Your task to perform on an android device: clear history in the chrome app Image 0: 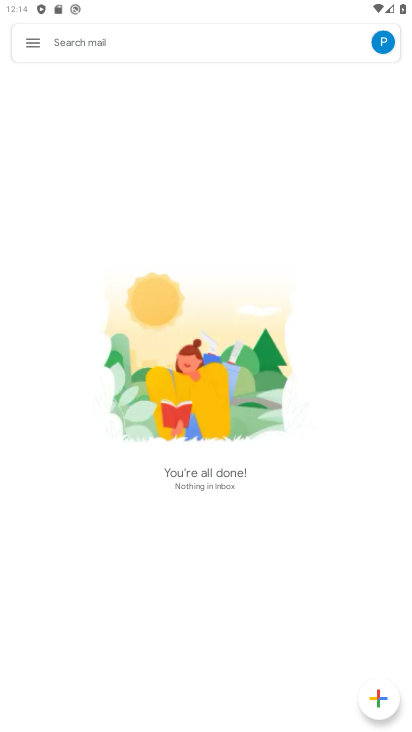
Step 0: press back button
Your task to perform on an android device: clear history in the chrome app Image 1: 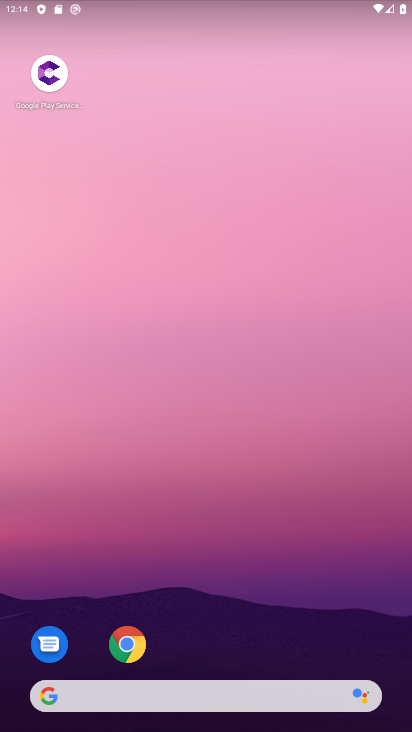
Step 1: click (116, 640)
Your task to perform on an android device: clear history in the chrome app Image 2: 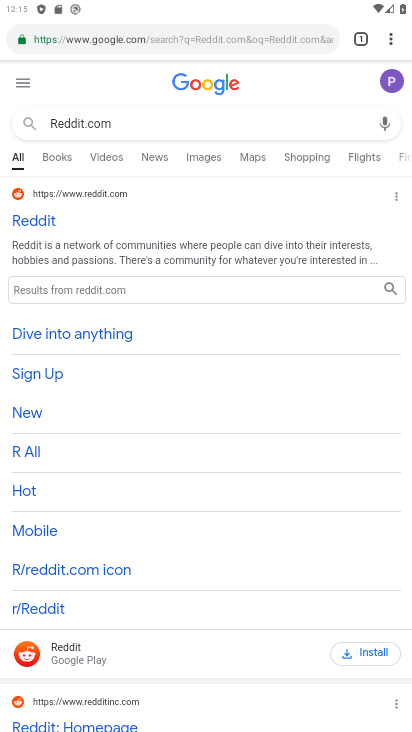
Step 2: click (392, 37)
Your task to perform on an android device: clear history in the chrome app Image 3: 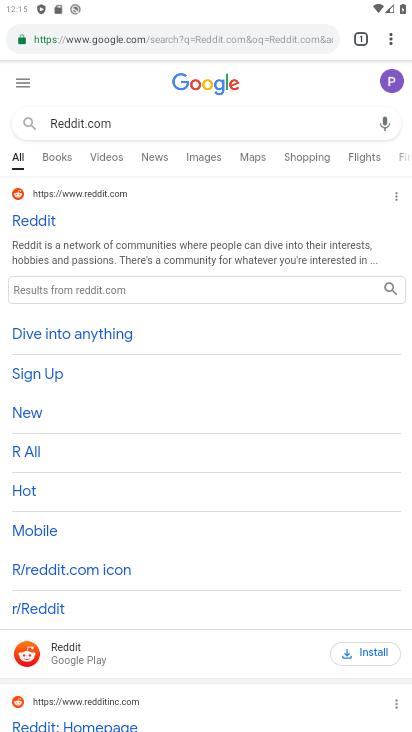
Step 3: click (392, 37)
Your task to perform on an android device: clear history in the chrome app Image 4: 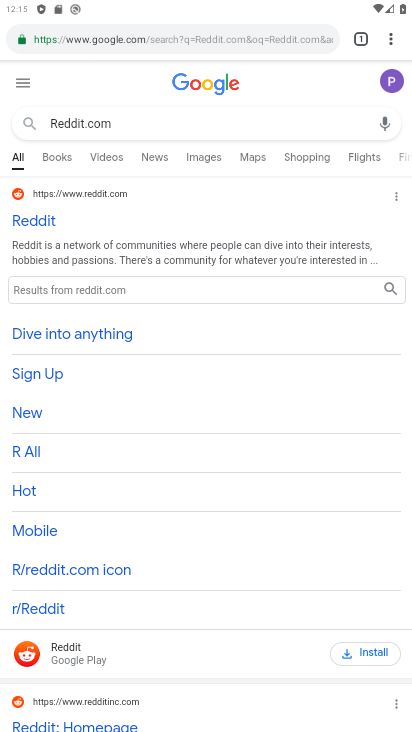
Step 4: click (392, 37)
Your task to perform on an android device: clear history in the chrome app Image 5: 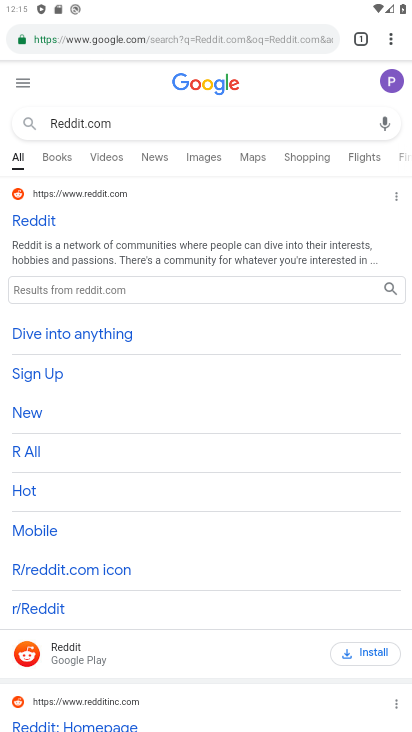
Step 5: click (389, 34)
Your task to perform on an android device: clear history in the chrome app Image 6: 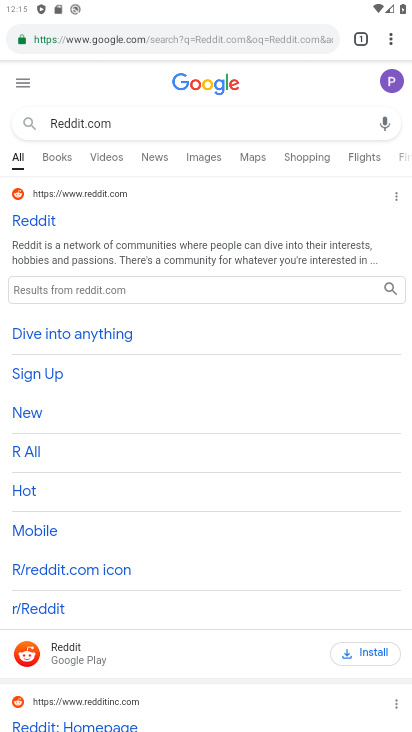
Step 6: click (391, 36)
Your task to perform on an android device: clear history in the chrome app Image 7: 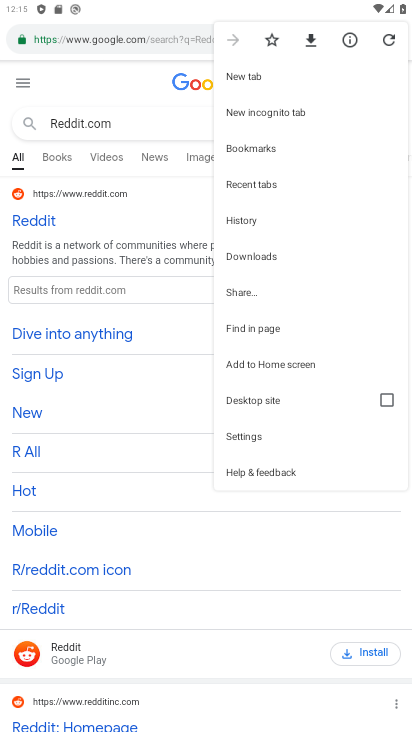
Step 7: click (237, 213)
Your task to perform on an android device: clear history in the chrome app Image 8: 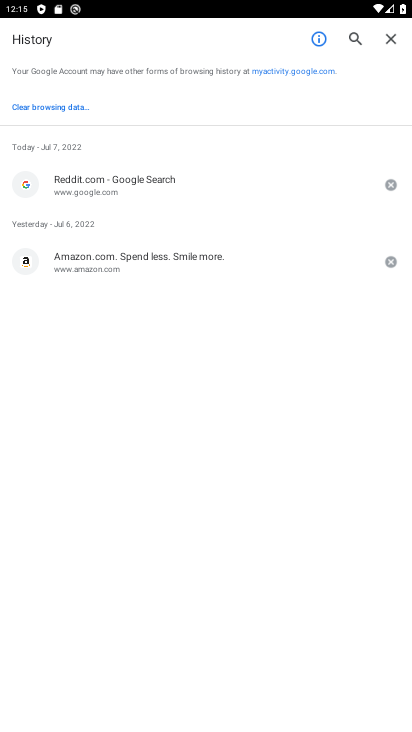
Step 8: click (36, 98)
Your task to perform on an android device: clear history in the chrome app Image 9: 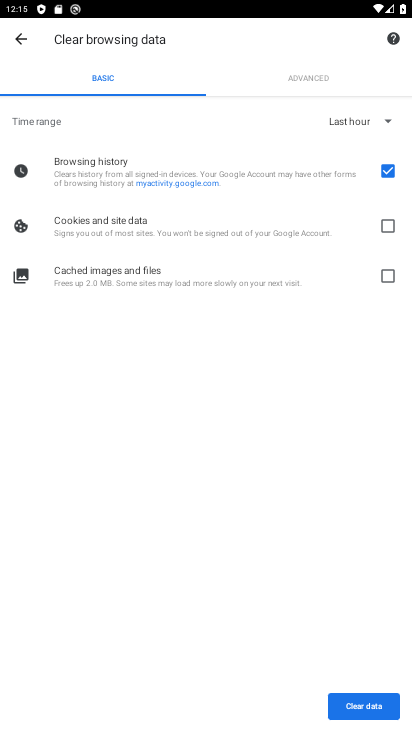
Step 9: click (392, 225)
Your task to perform on an android device: clear history in the chrome app Image 10: 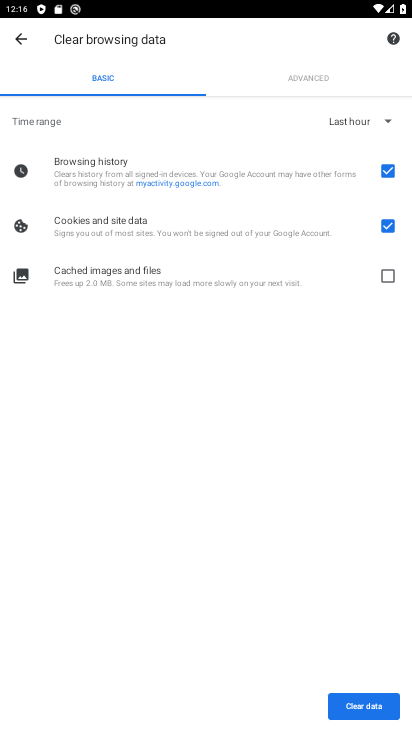
Step 10: click (389, 279)
Your task to perform on an android device: clear history in the chrome app Image 11: 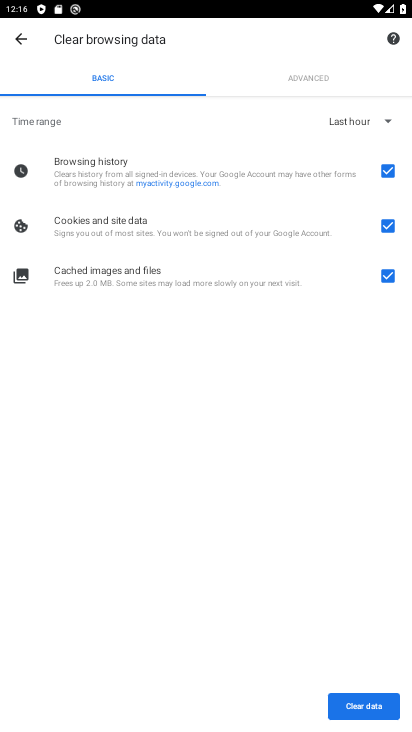
Step 11: click (360, 705)
Your task to perform on an android device: clear history in the chrome app Image 12: 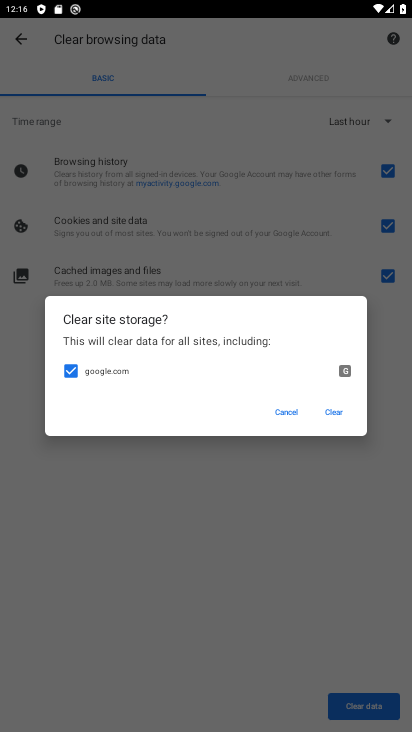
Step 12: click (321, 408)
Your task to perform on an android device: clear history in the chrome app Image 13: 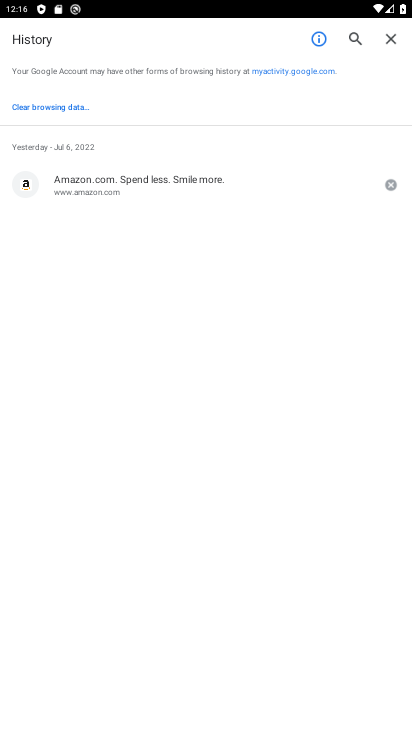
Step 13: click (393, 183)
Your task to perform on an android device: clear history in the chrome app Image 14: 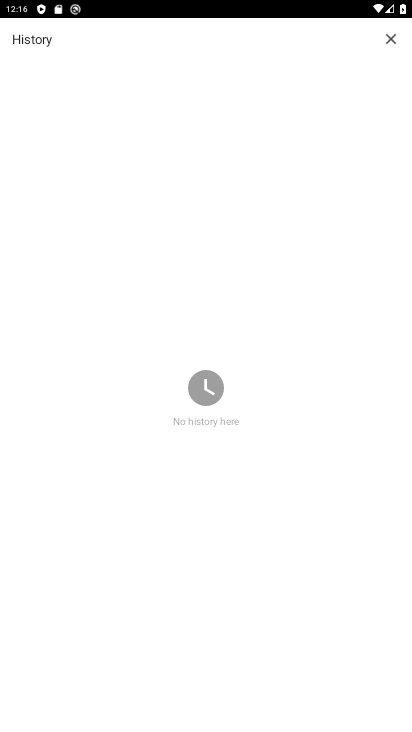
Step 14: task complete